Your task to perform on an android device: Go to sound settings Image 0: 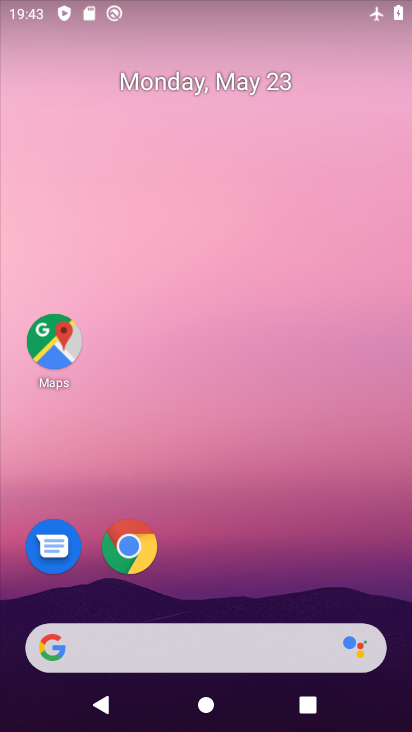
Step 0: drag from (392, 610) to (382, 241)
Your task to perform on an android device: Go to sound settings Image 1: 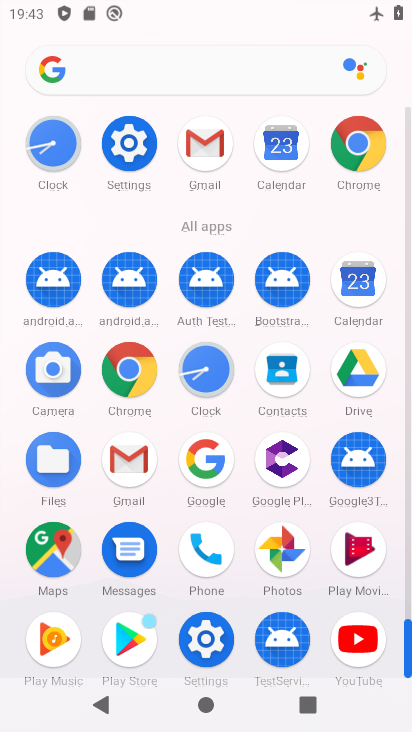
Step 1: drag from (393, 590) to (402, 479)
Your task to perform on an android device: Go to sound settings Image 2: 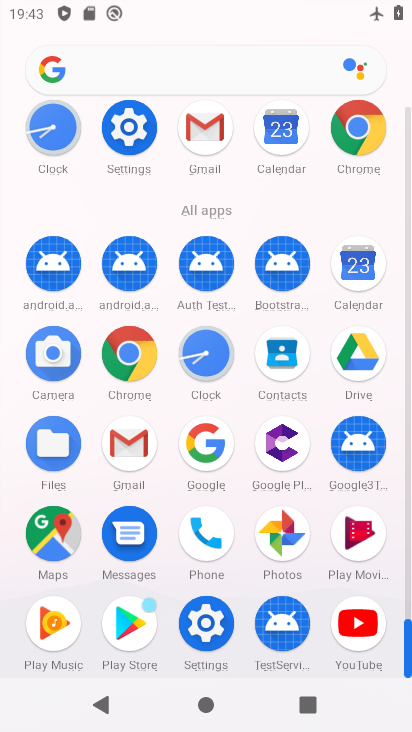
Step 2: click (202, 633)
Your task to perform on an android device: Go to sound settings Image 3: 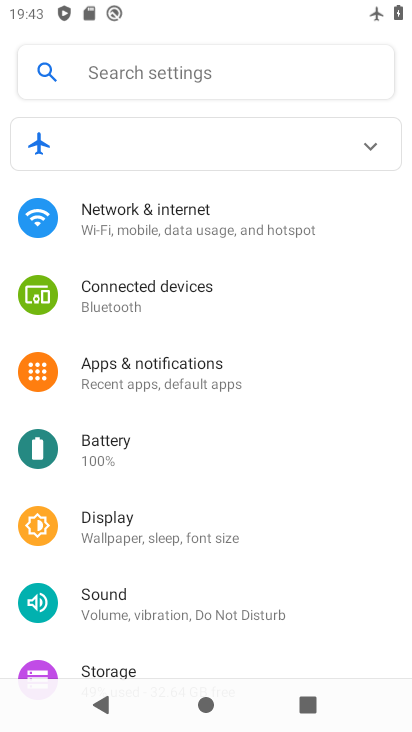
Step 3: drag from (351, 580) to (361, 509)
Your task to perform on an android device: Go to sound settings Image 4: 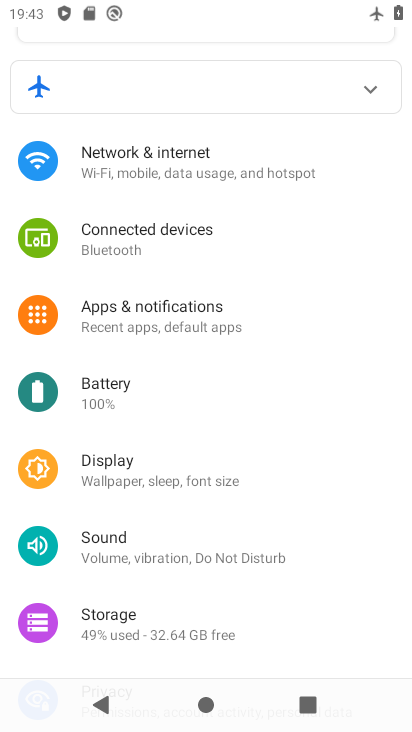
Step 4: drag from (380, 609) to (385, 529)
Your task to perform on an android device: Go to sound settings Image 5: 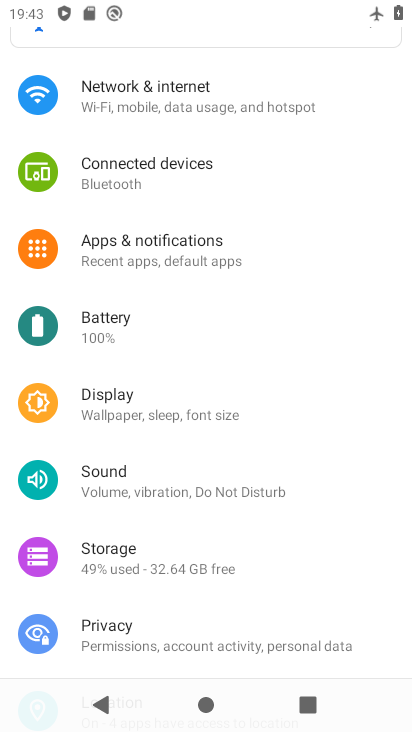
Step 5: drag from (381, 619) to (378, 508)
Your task to perform on an android device: Go to sound settings Image 6: 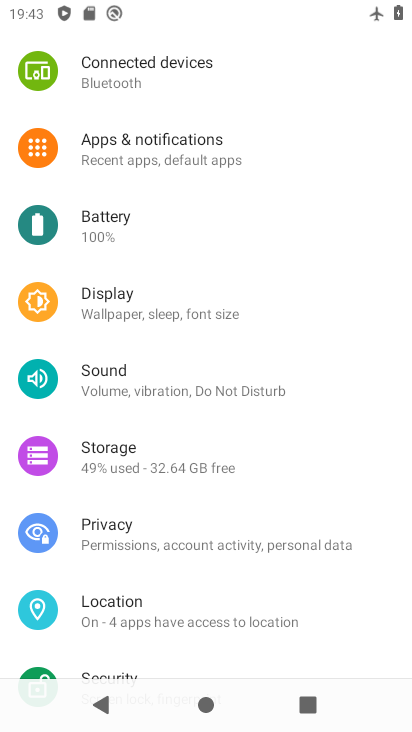
Step 6: drag from (366, 628) to (371, 532)
Your task to perform on an android device: Go to sound settings Image 7: 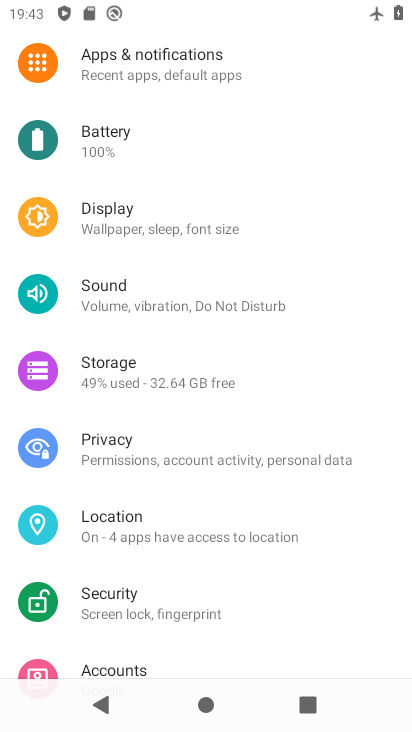
Step 7: drag from (363, 624) to (358, 527)
Your task to perform on an android device: Go to sound settings Image 8: 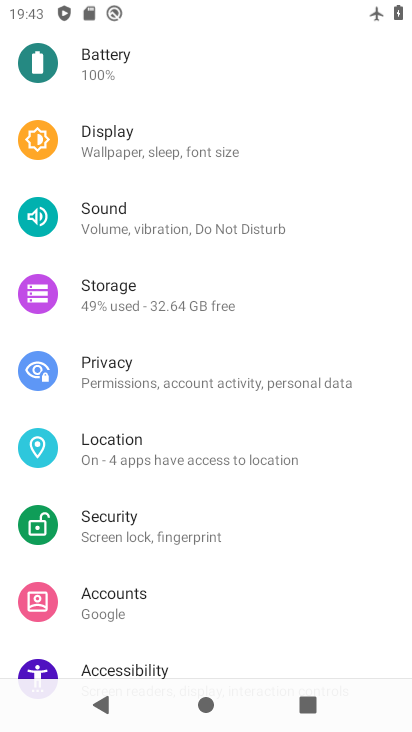
Step 8: drag from (367, 625) to (358, 527)
Your task to perform on an android device: Go to sound settings Image 9: 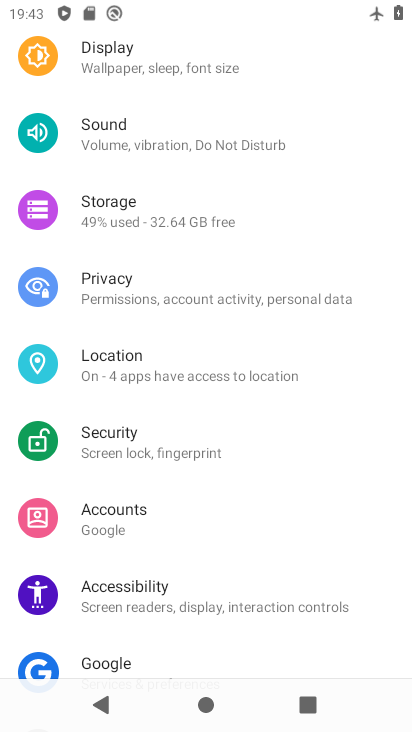
Step 9: drag from (364, 639) to (370, 519)
Your task to perform on an android device: Go to sound settings Image 10: 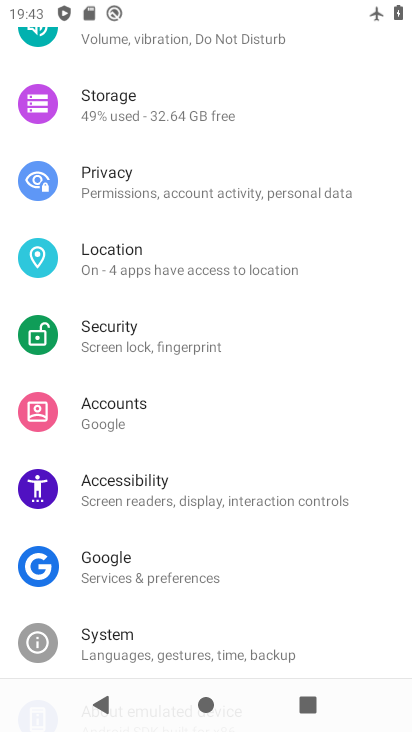
Step 10: drag from (380, 629) to (372, 490)
Your task to perform on an android device: Go to sound settings Image 11: 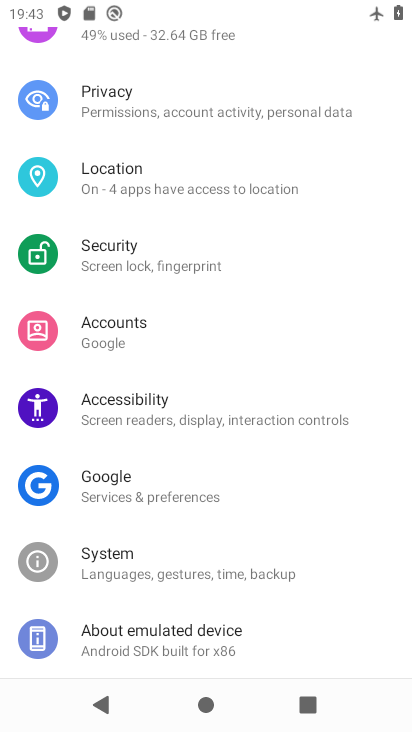
Step 11: drag from (370, 443) to (370, 529)
Your task to perform on an android device: Go to sound settings Image 12: 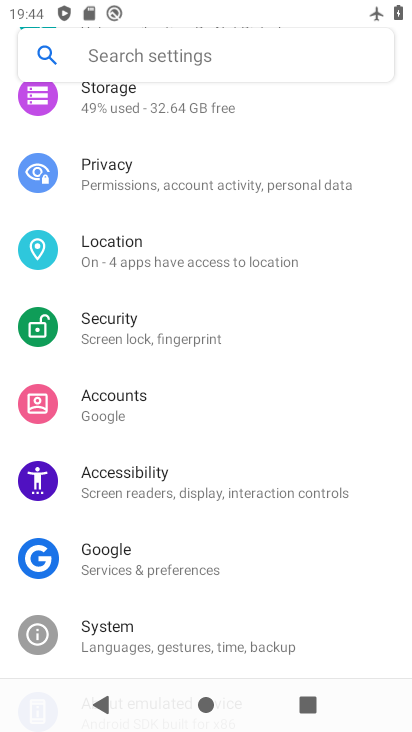
Step 12: drag from (367, 444) to (353, 530)
Your task to perform on an android device: Go to sound settings Image 13: 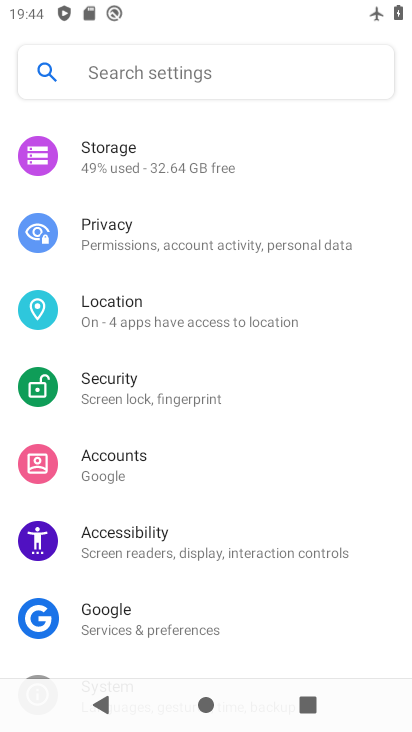
Step 13: drag from (367, 454) to (363, 546)
Your task to perform on an android device: Go to sound settings Image 14: 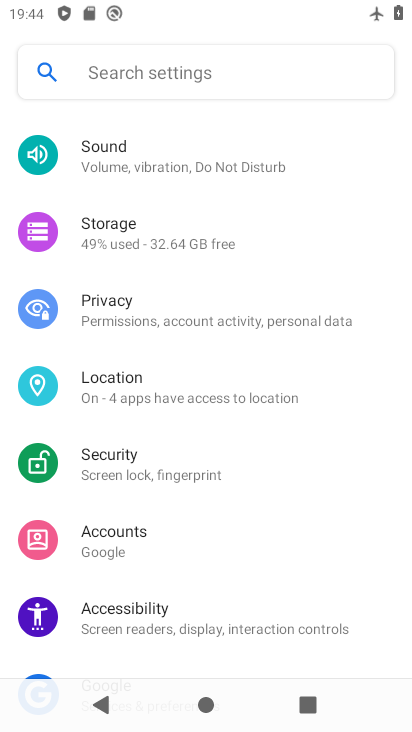
Step 14: drag from (363, 447) to (363, 542)
Your task to perform on an android device: Go to sound settings Image 15: 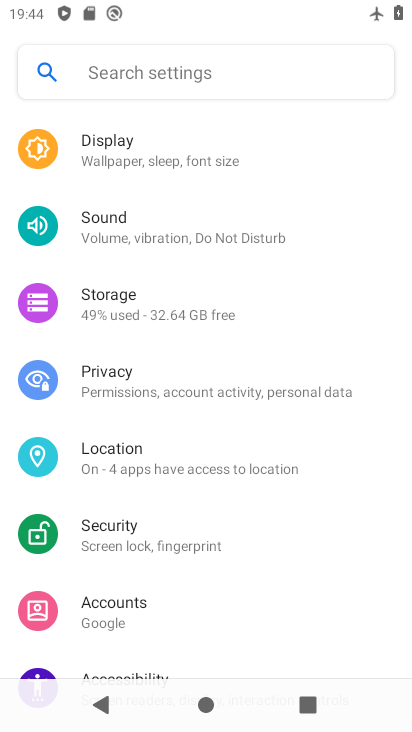
Step 15: drag from (379, 452) to (379, 541)
Your task to perform on an android device: Go to sound settings Image 16: 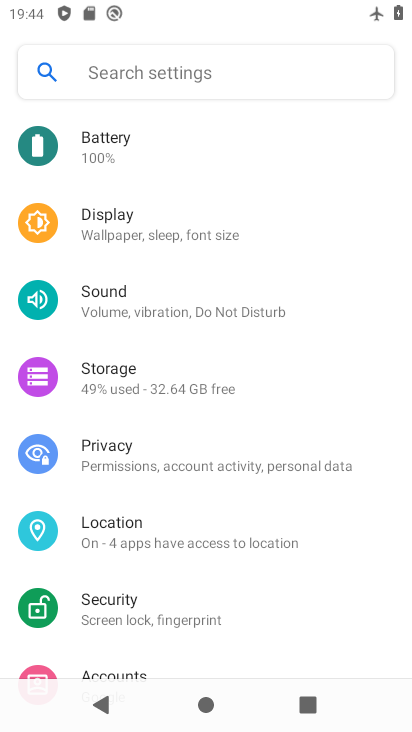
Step 16: drag from (367, 416) to (359, 520)
Your task to perform on an android device: Go to sound settings Image 17: 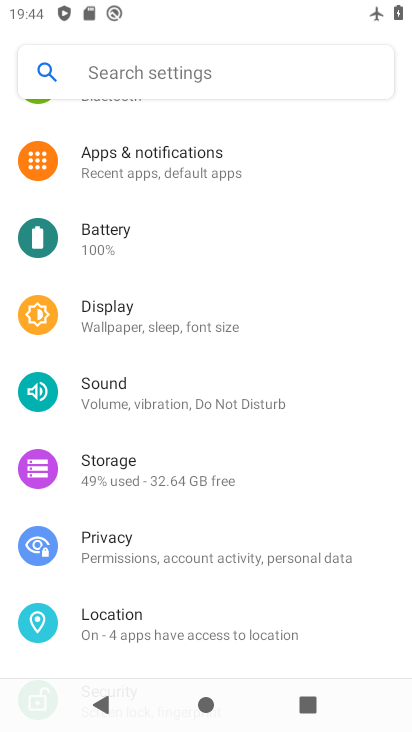
Step 17: drag from (368, 397) to (363, 524)
Your task to perform on an android device: Go to sound settings Image 18: 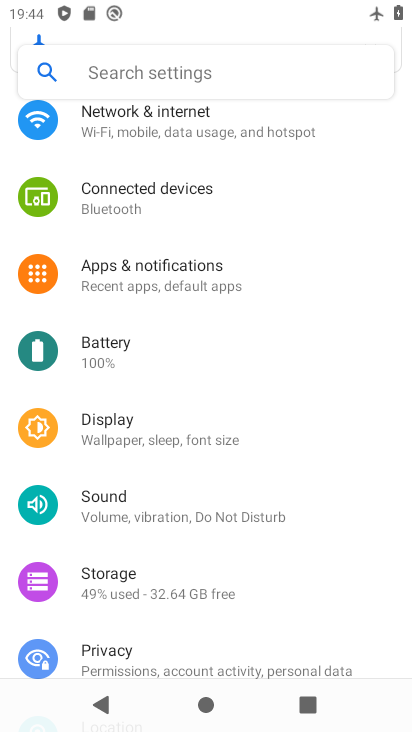
Step 18: drag from (359, 460) to (352, 597)
Your task to perform on an android device: Go to sound settings Image 19: 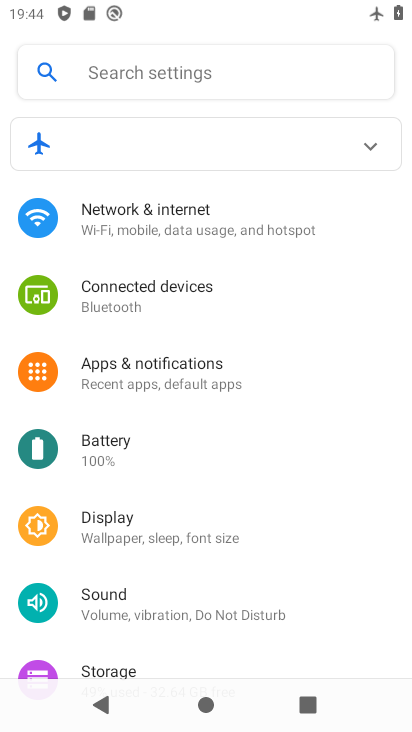
Step 19: click (196, 612)
Your task to perform on an android device: Go to sound settings Image 20: 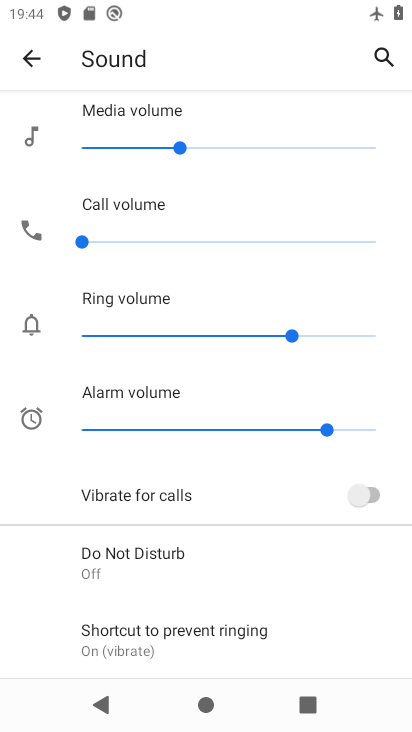
Step 20: task complete